Your task to perform on an android device: turn pop-ups off in chrome Image 0: 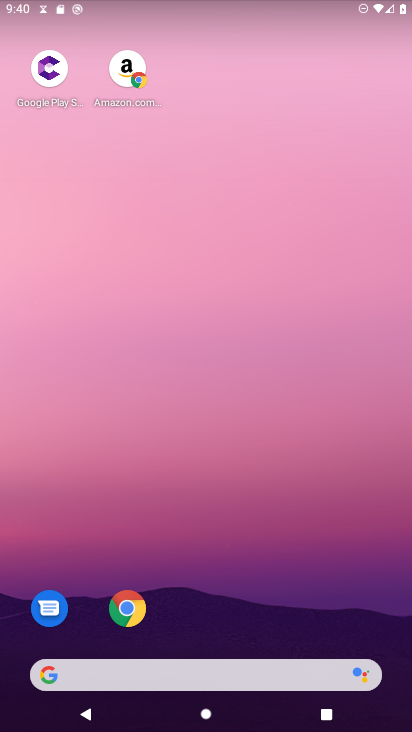
Step 0: click (128, 611)
Your task to perform on an android device: turn pop-ups off in chrome Image 1: 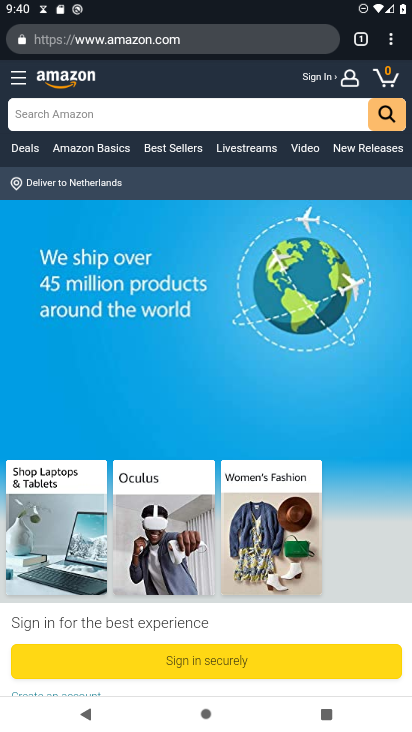
Step 1: click (391, 45)
Your task to perform on an android device: turn pop-ups off in chrome Image 2: 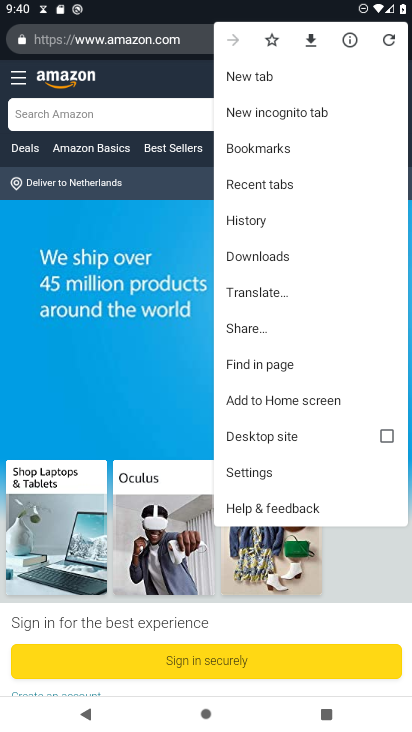
Step 2: click (261, 470)
Your task to perform on an android device: turn pop-ups off in chrome Image 3: 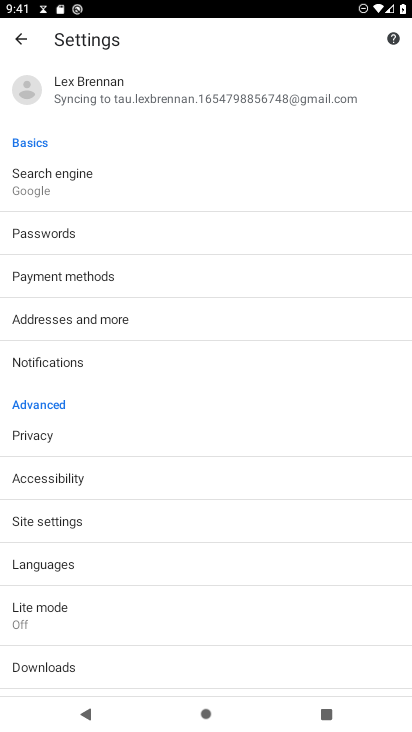
Step 3: click (64, 530)
Your task to perform on an android device: turn pop-ups off in chrome Image 4: 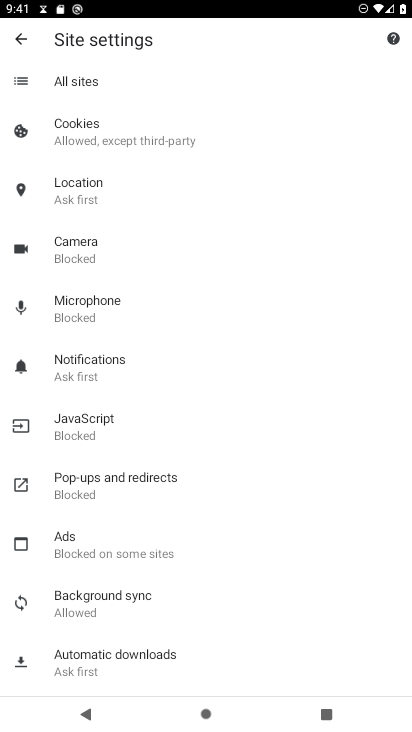
Step 4: click (114, 482)
Your task to perform on an android device: turn pop-ups off in chrome Image 5: 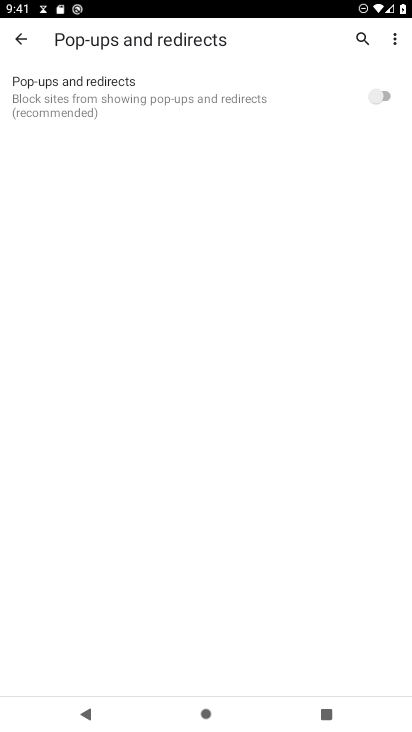
Step 5: task complete